Your task to perform on an android device: What's the weather going to be tomorrow? Image 0: 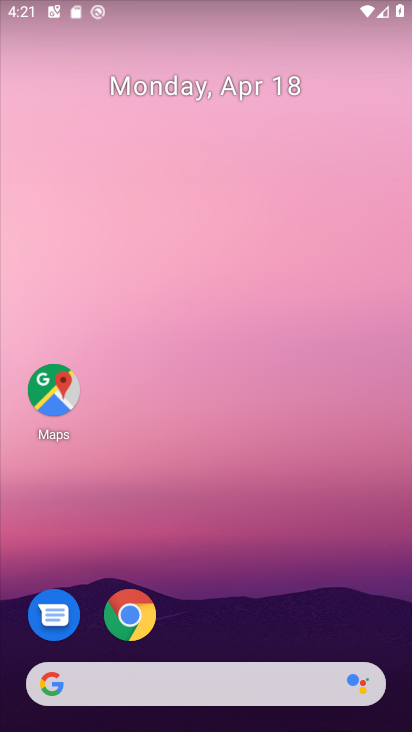
Step 0: drag from (46, 188) to (408, 217)
Your task to perform on an android device: What's the weather going to be tomorrow? Image 1: 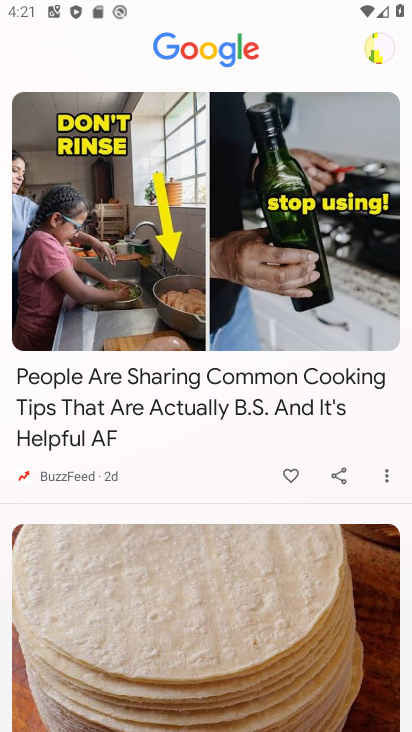
Step 1: click (230, 59)
Your task to perform on an android device: What's the weather going to be tomorrow? Image 2: 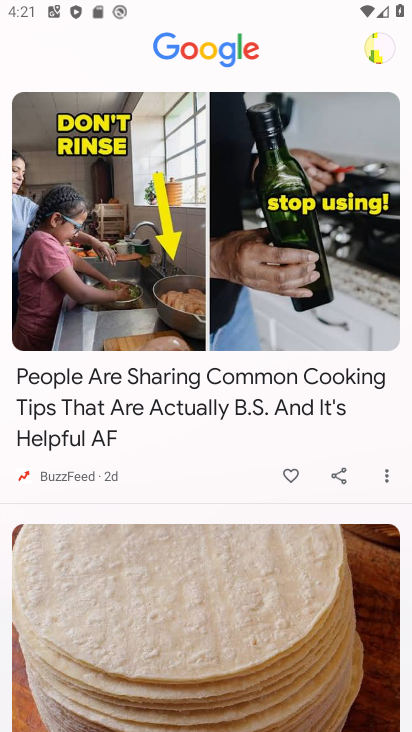
Step 2: drag from (345, 373) to (0, 423)
Your task to perform on an android device: What's the weather going to be tomorrow? Image 3: 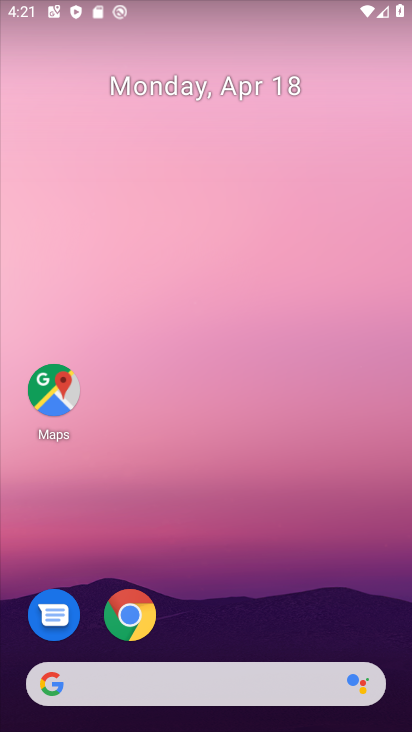
Step 3: click (125, 614)
Your task to perform on an android device: What's the weather going to be tomorrow? Image 4: 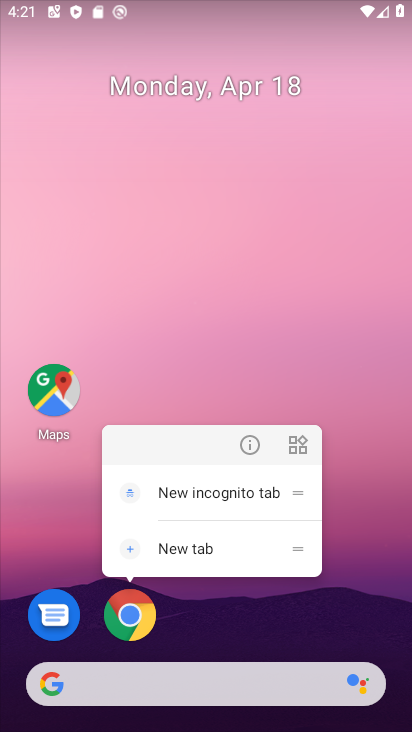
Step 4: click (136, 603)
Your task to perform on an android device: What's the weather going to be tomorrow? Image 5: 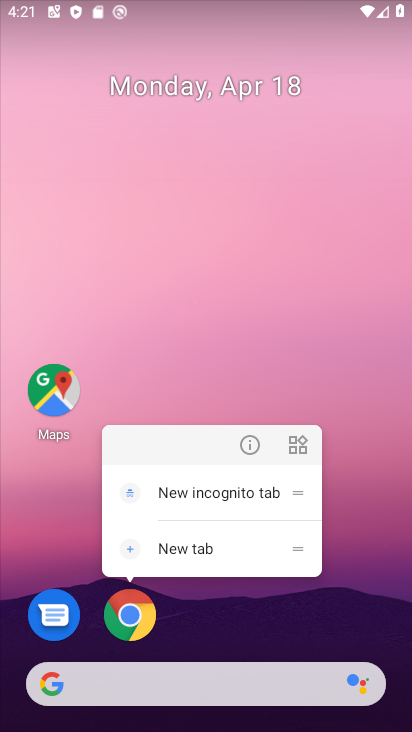
Step 5: click (136, 603)
Your task to perform on an android device: What's the weather going to be tomorrow? Image 6: 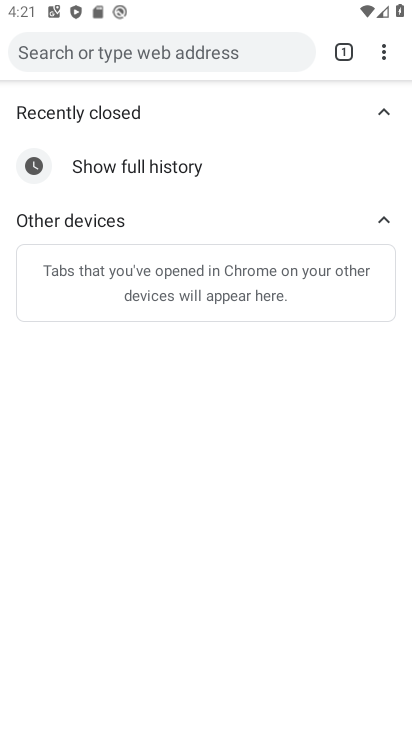
Step 6: click (158, 49)
Your task to perform on an android device: What's the weather going to be tomorrow? Image 7: 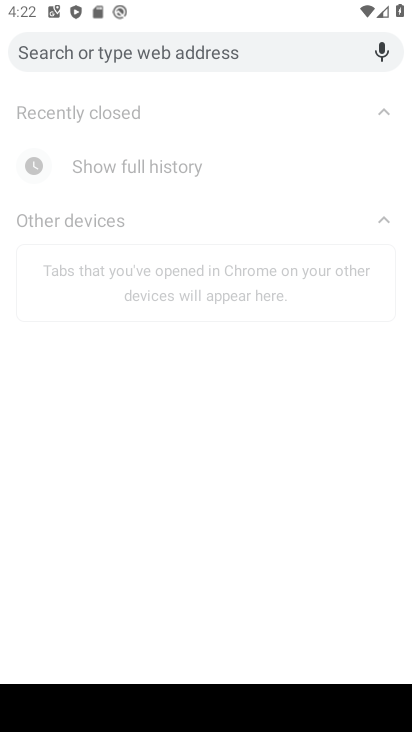
Step 7: type "weather tomorrow"
Your task to perform on an android device: What's the weather going to be tomorrow? Image 8: 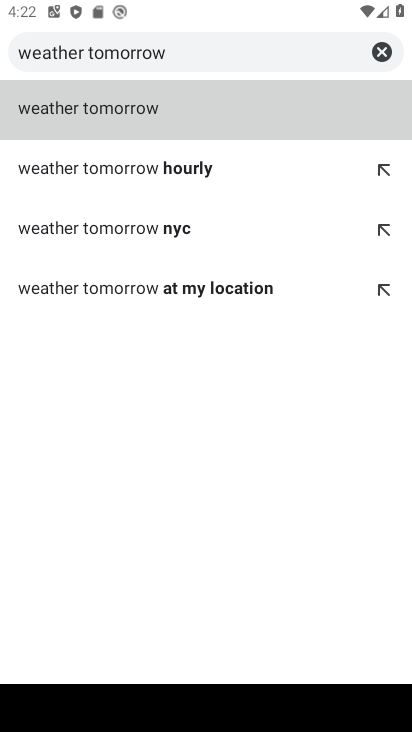
Step 8: click (160, 103)
Your task to perform on an android device: What's the weather going to be tomorrow? Image 9: 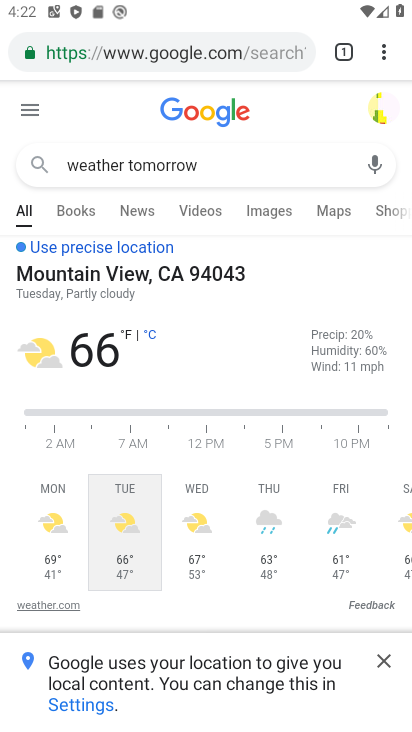
Step 9: task complete